Your task to perform on an android device: change the upload size in google photos Image 0: 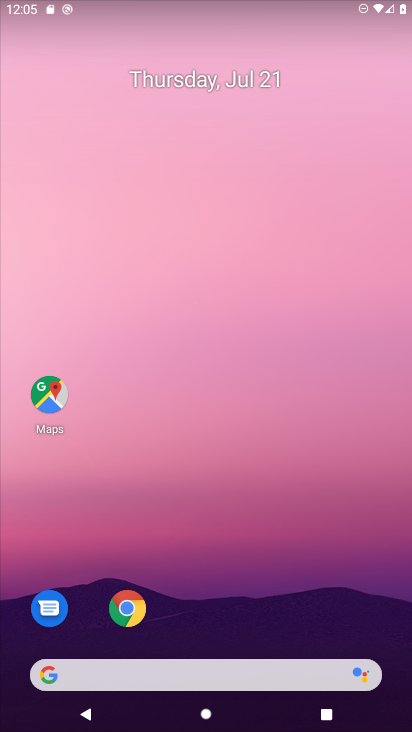
Step 0: press home button
Your task to perform on an android device: change the upload size in google photos Image 1: 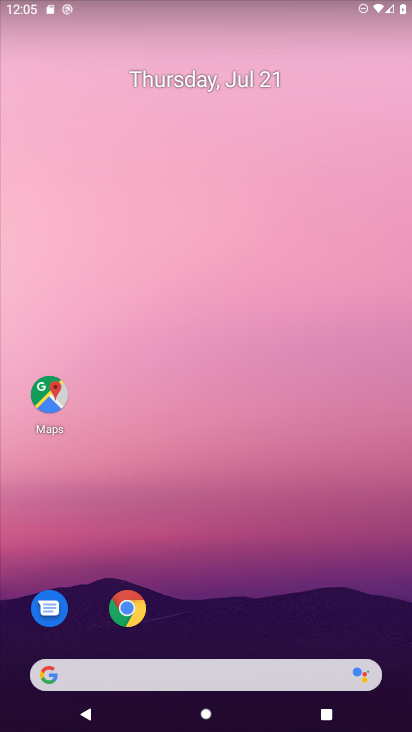
Step 1: drag from (214, 636) to (251, 14)
Your task to perform on an android device: change the upload size in google photos Image 2: 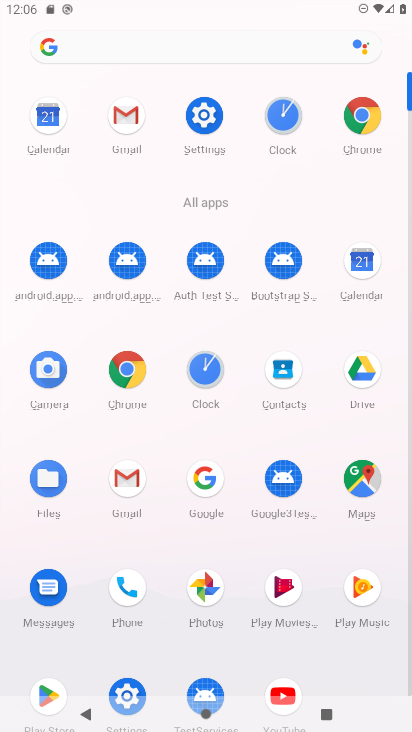
Step 2: click (202, 587)
Your task to perform on an android device: change the upload size in google photos Image 3: 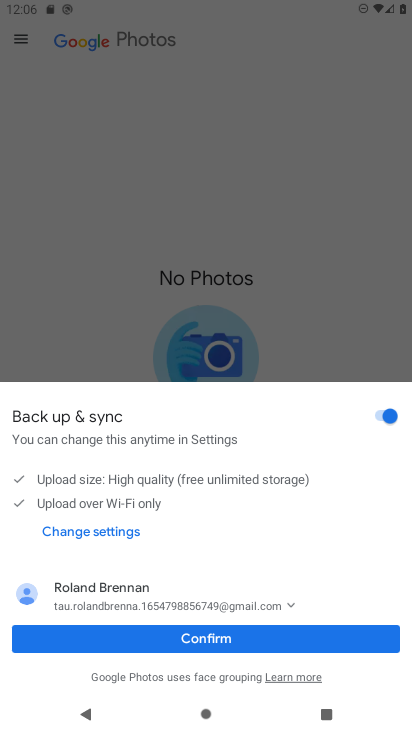
Step 3: click (207, 638)
Your task to perform on an android device: change the upload size in google photos Image 4: 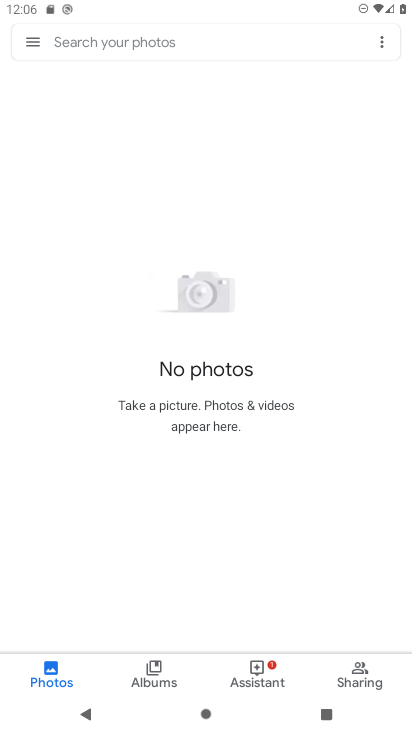
Step 4: click (26, 46)
Your task to perform on an android device: change the upload size in google photos Image 5: 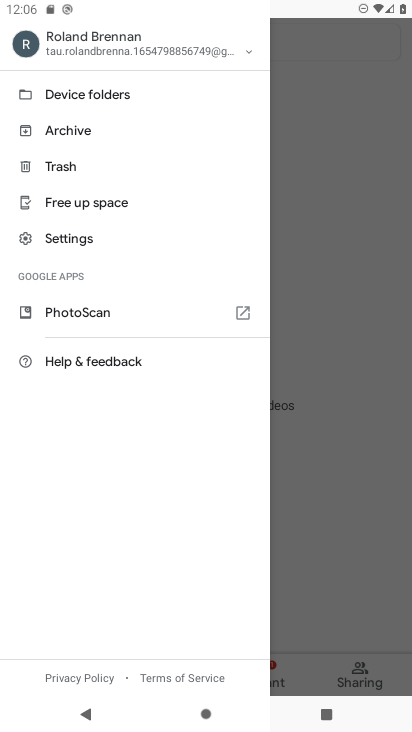
Step 5: click (64, 243)
Your task to perform on an android device: change the upload size in google photos Image 6: 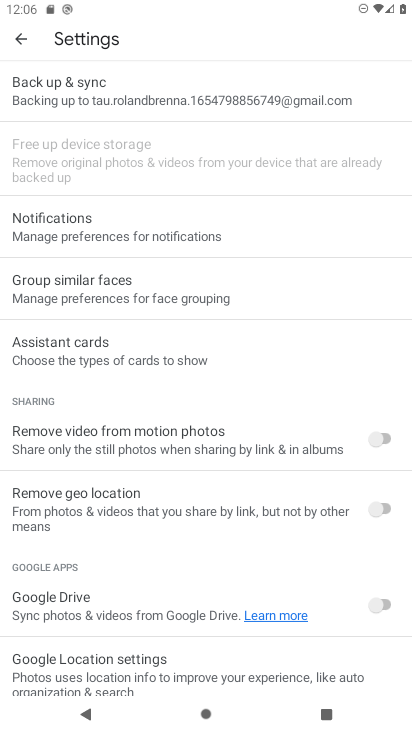
Step 6: click (68, 101)
Your task to perform on an android device: change the upload size in google photos Image 7: 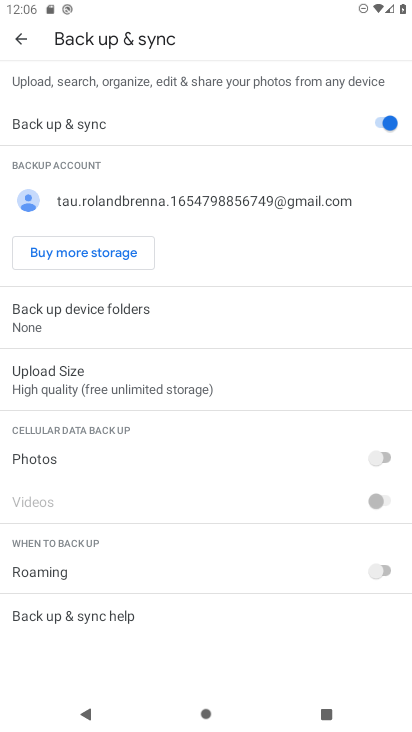
Step 7: click (66, 388)
Your task to perform on an android device: change the upload size in google photos Image 8: 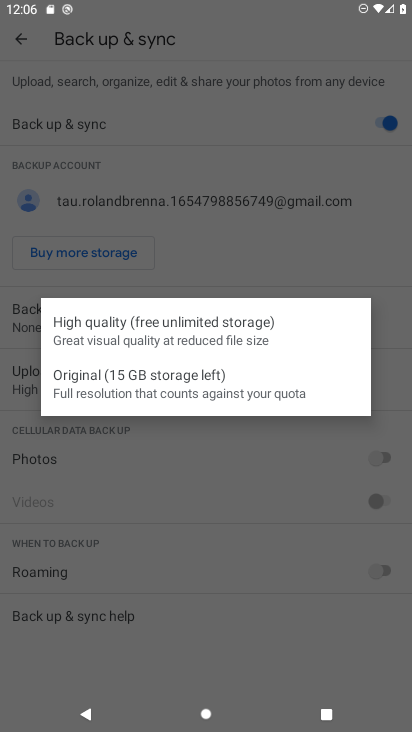
Step 8: click (95, 378)
Your task to perform on an android device: change the upload size in google photos Image 9: 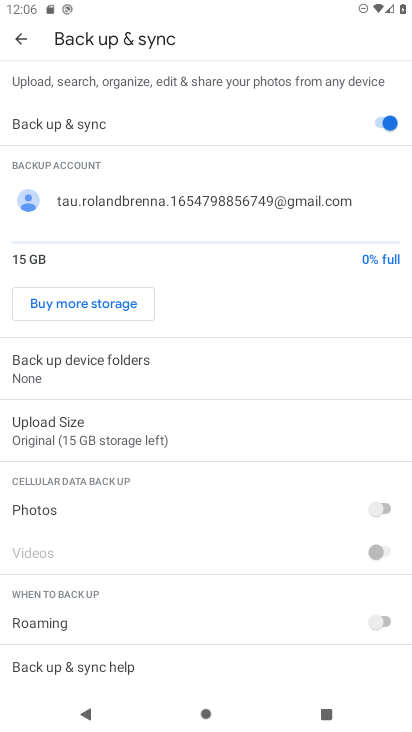
Step 9: task complete